Your task to perform on an android device: turn pop-ups on in chrome Image 0: 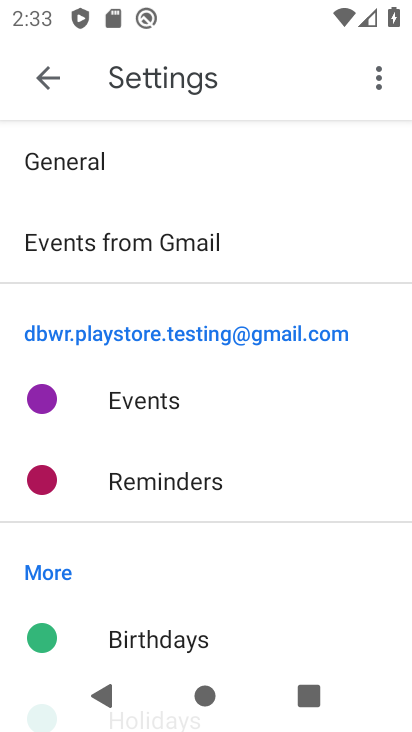
Step 0: press back button
Your task to perform on an android device: turn pop-ups on in chrome Image 1: 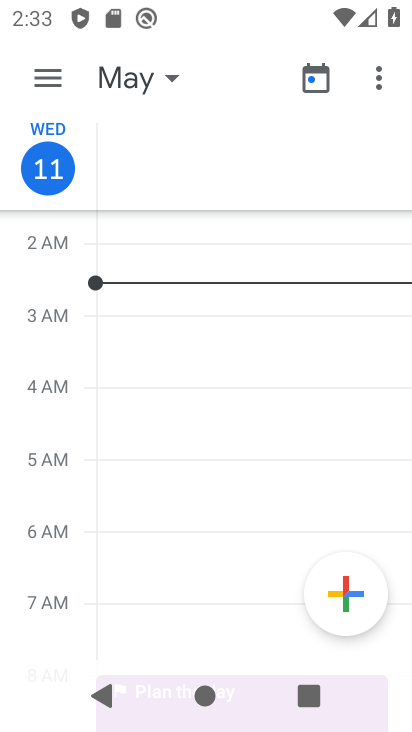
Step 1: press back button
Your task to perform on an android device: turn pop-ups on in chrome Image 2: 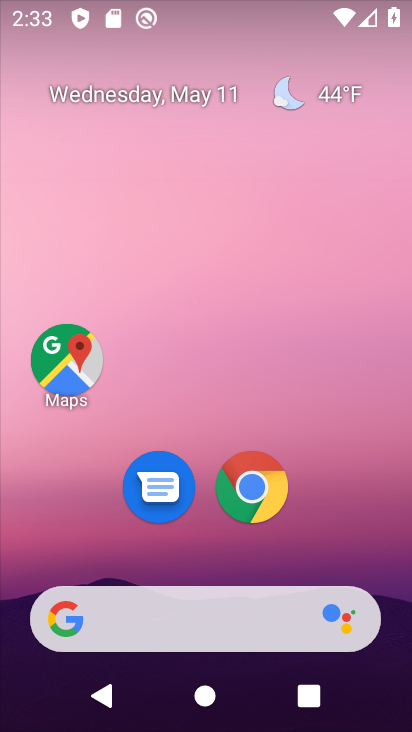
Step 2: click (244, 493)
Your task to perform on an android device: turn pop-ups on in chrome Image 3: 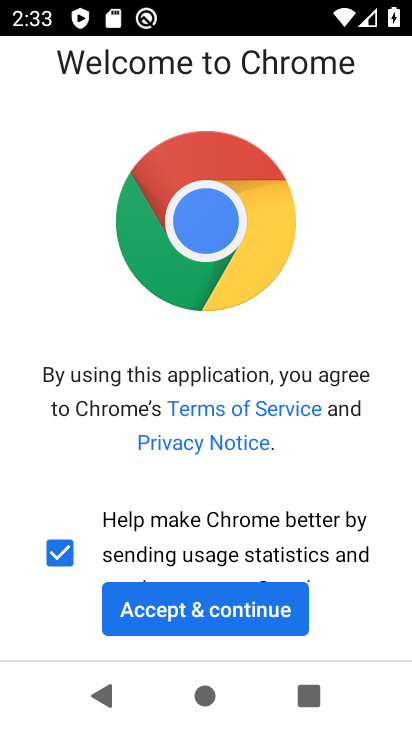
Step 3: click (228, 608)
Your task to perform on an android device: turn pop-ups on in chrome Image 4: 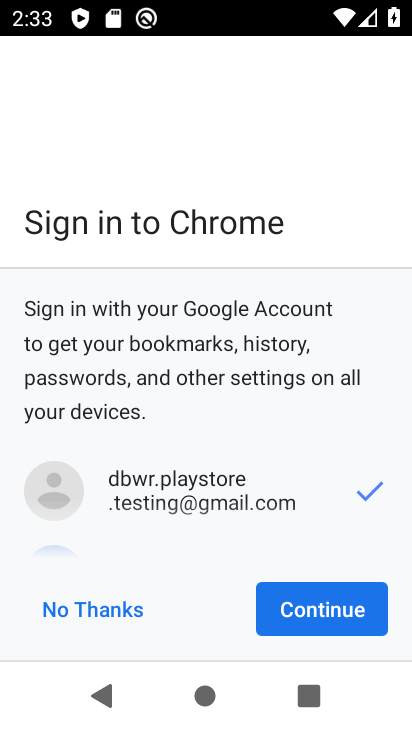
Step 4: click (290, 607)
Your task to perform on an android device: turn pop-ups on in chrome Image 5: 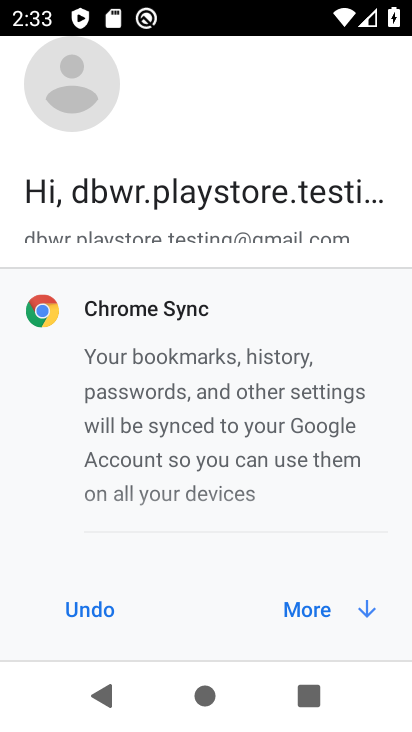
Step 5: click (294, 603)
Your task to perform on an android device: turn pop-ups on in chrome Image 6: 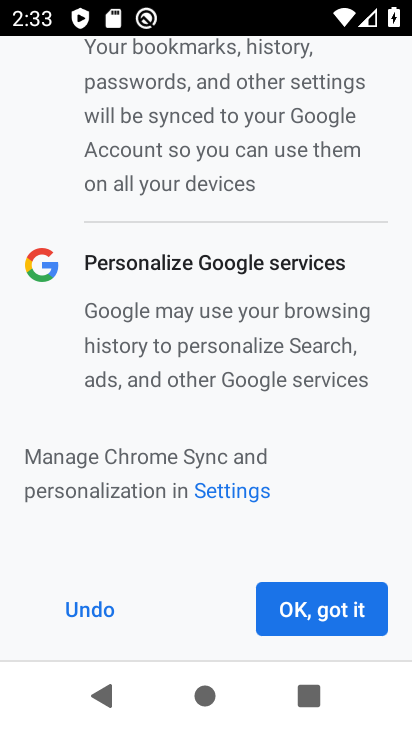
Step 6: click (298, 603)
Your task to perform on an android device: turn pop-ups on in chrome Image 7: 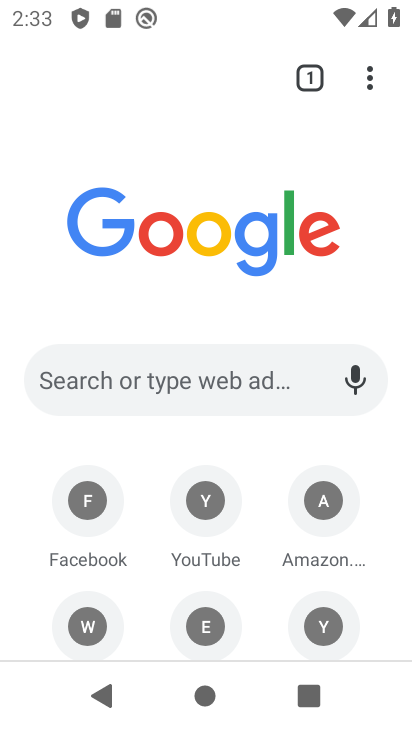
Step 7: drag from (373, 76) to (146, 532)
Your task to perform on an android device: turn pop-ups on in chrome Image 8: 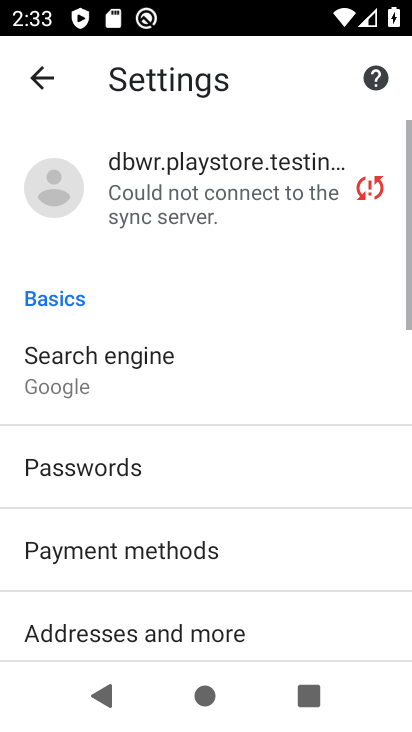
Step 8: drag from (159, 605) to (244, 146)
Your task to perform on an android device: turn pop-ups on in chrome Image 9: 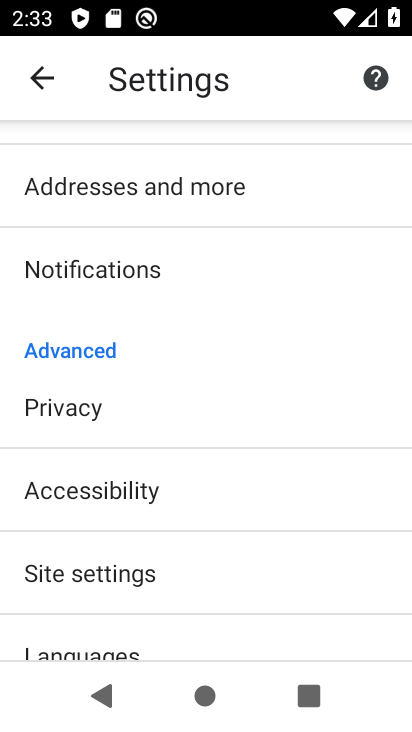
Step 9: click (93, 561)
Your task to perform on an android device: turn pop-ups on in chrome Image 10: 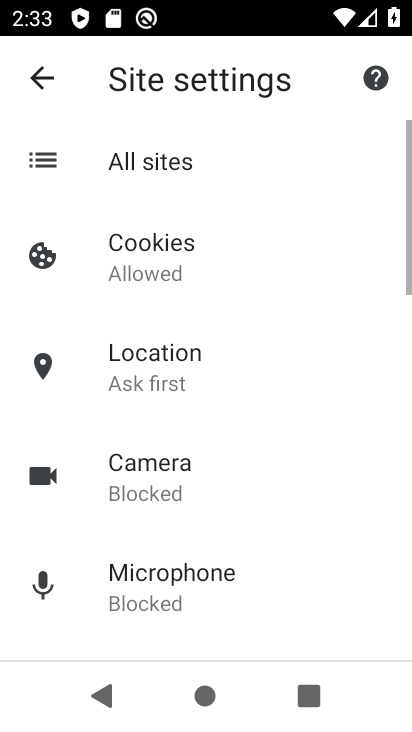
Step 10: drag from (142, 573) to (184, 83)
Your task to perform on an android device: turn pop-ups on in chrome Image 11: 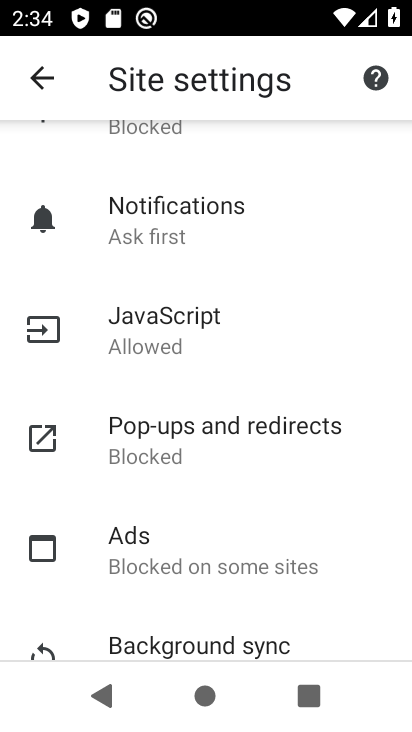
Step 11: click (208, 433)
Your task to perform on an android device: turn pop-ups on in chrome Image 12: 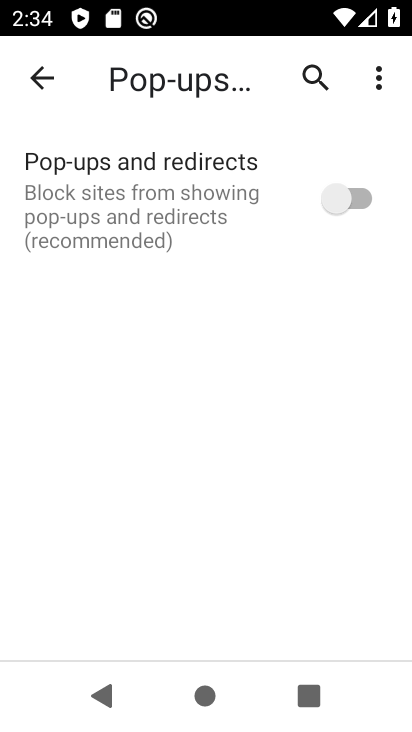
Step 12: click (344, 200)
Your task to perform on an android device: turn pop-ups on in chrome Image 13: 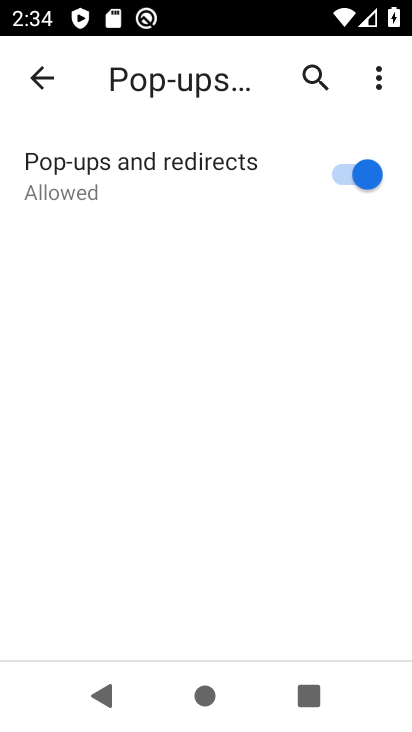
Step 13: task complete